Your task to perform on an android device: Clear all items from cart on amazon.com. Add "apple airpods" to the cart on amazon.com, then select checkout. Image 0: 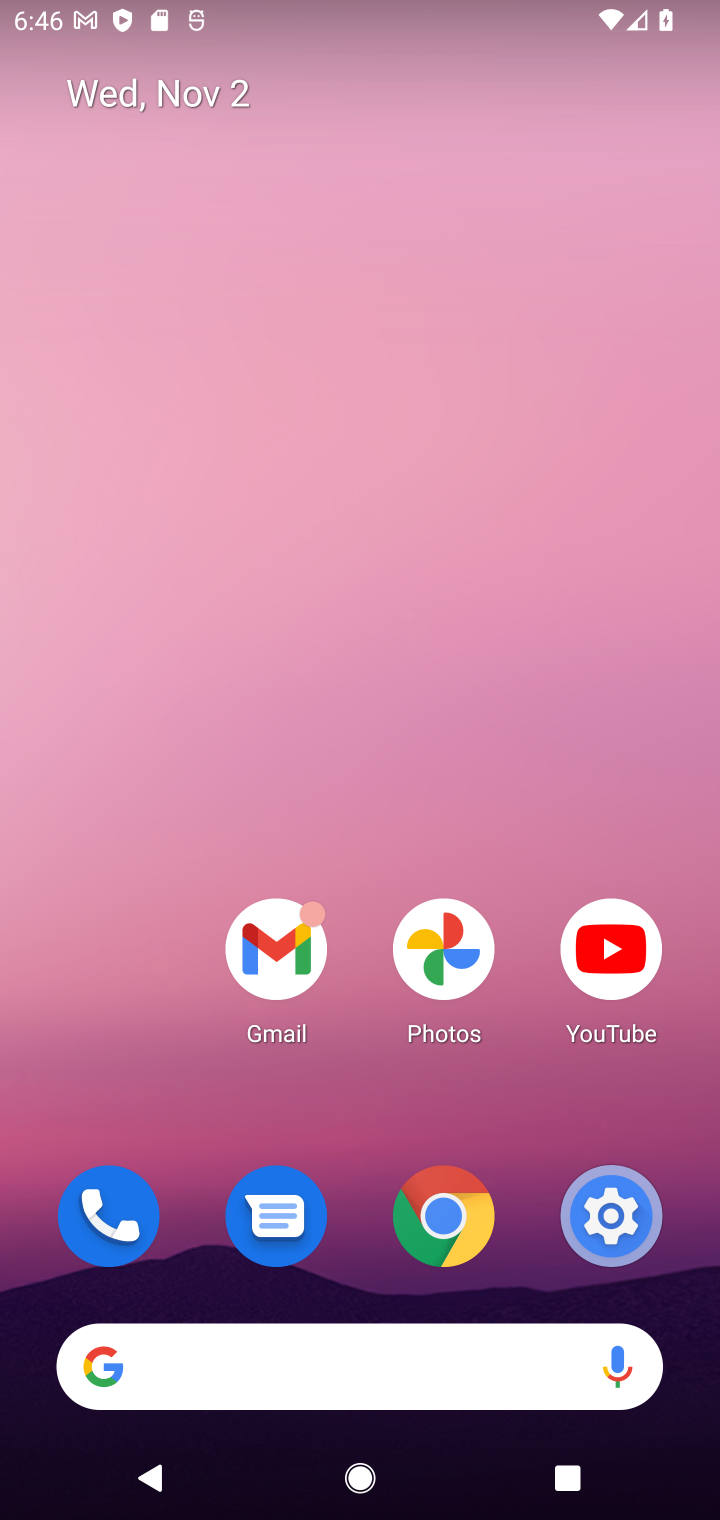
Step 0: drag from (370, 1133) to (373, 349)
Your task to perform on an android device: Clear all items from cart on amazon.com. Add "apple airpods" to the cart on amazon.com, then select checkout. Image 1: 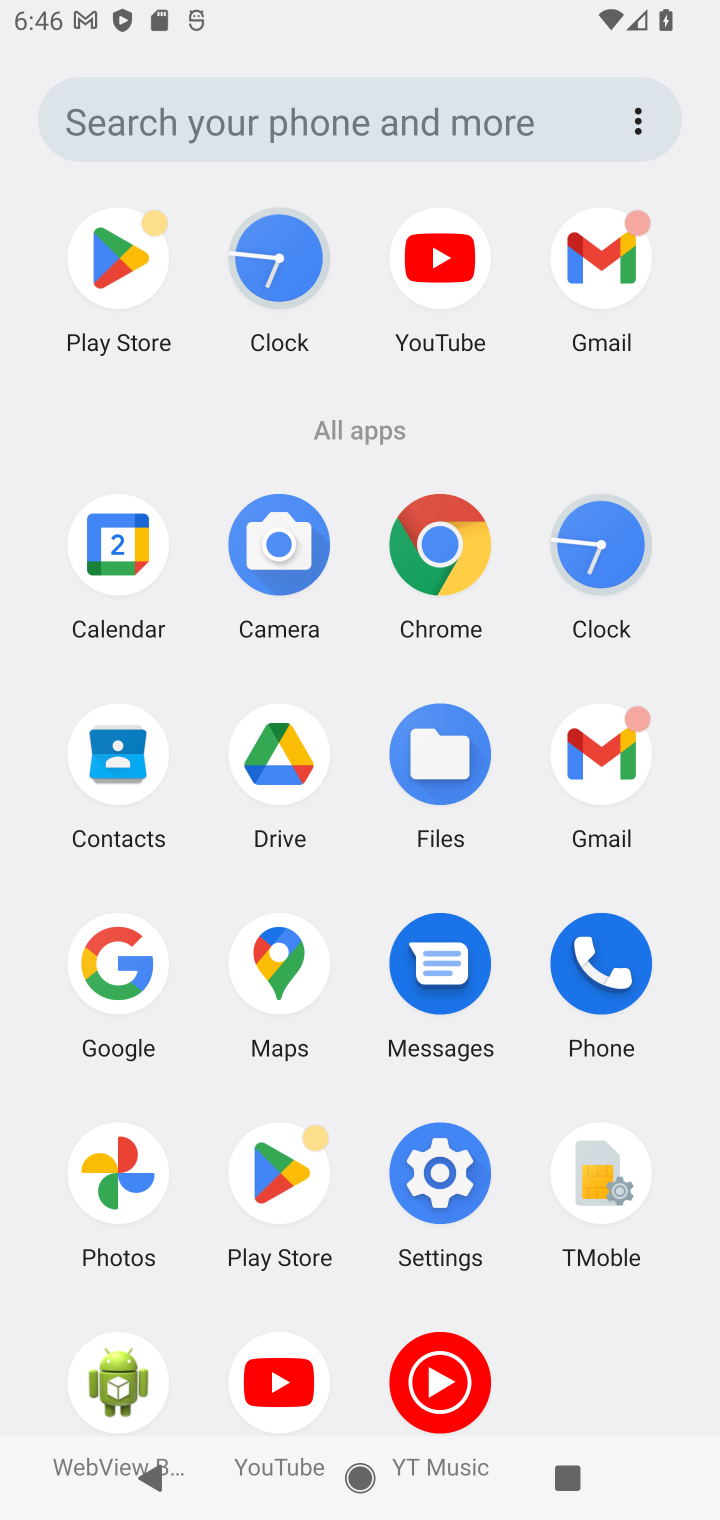
Step 1: click (429, 544)
Your task to perform on an android device: Clear all items from cart on amazon.com. Add "apple airpods" to the cart on amazon.com, then select checkout. Image 2: 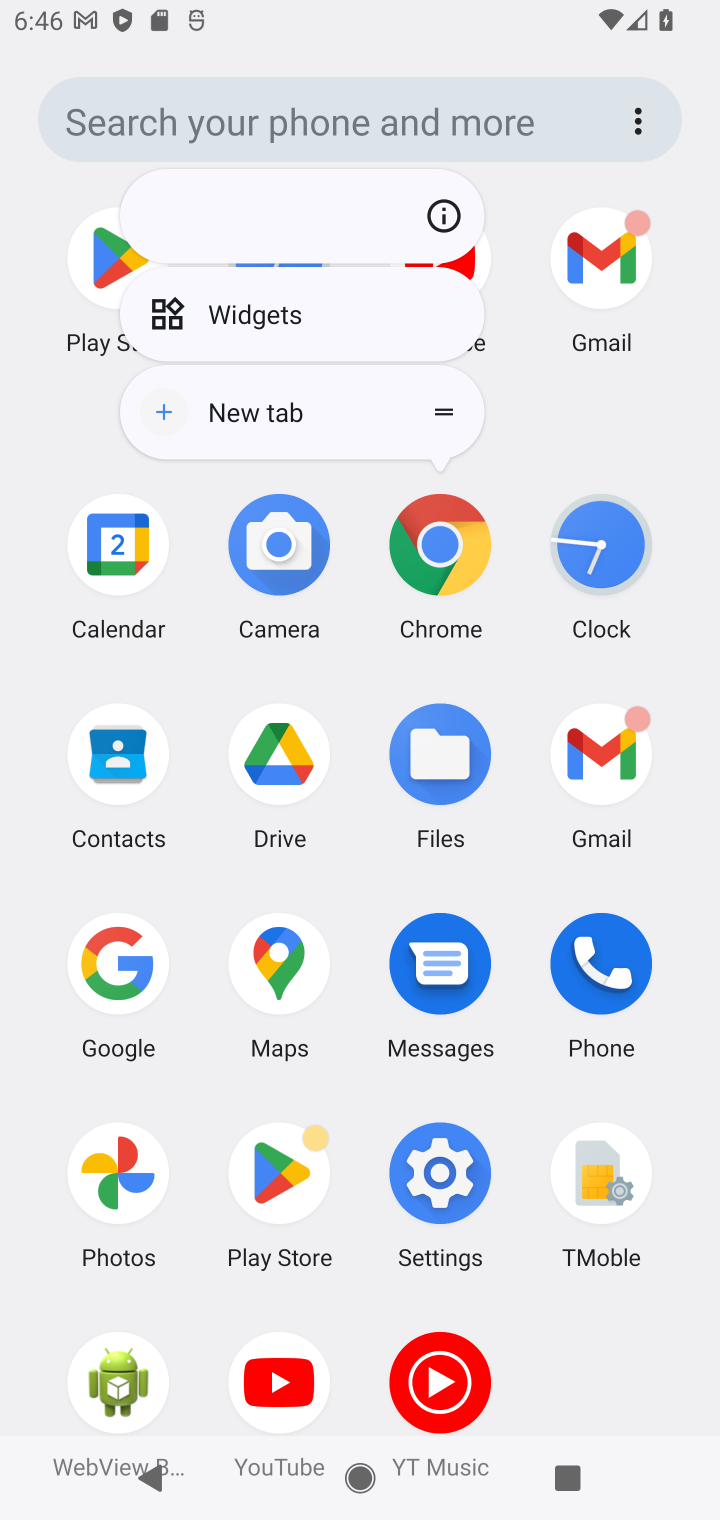
Step 2: click (450, 543)
Your task to perform on an android device: Clear all items from cart on amazon.com. Add "apple airpods" to the cart on amazon.com, then select checkout. Image 3: 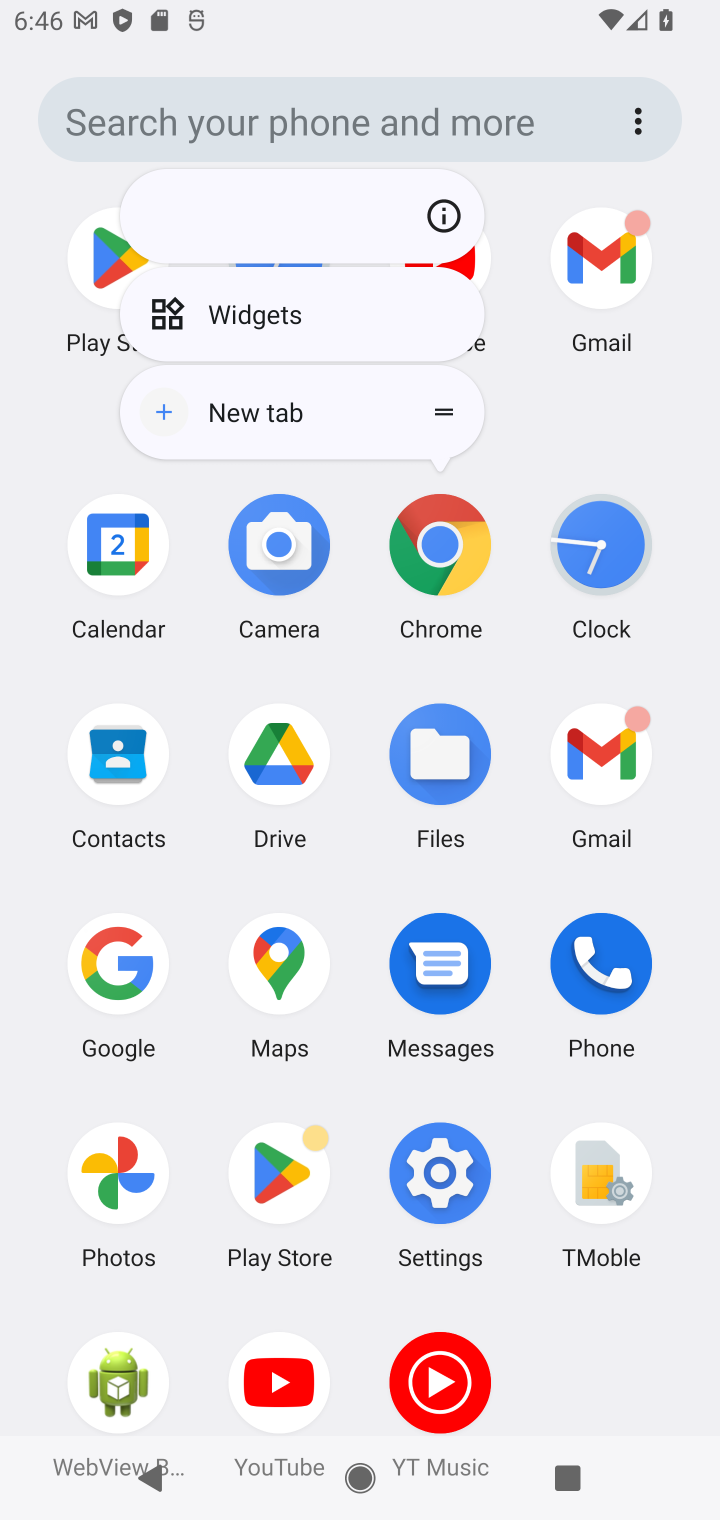
Step 3: click (437, 552)
Your task to perform on an android device: Clear all items from cart on amazon.com. Add "apple airpods" to the cart on amazon.com, then select checkout. Image 4: 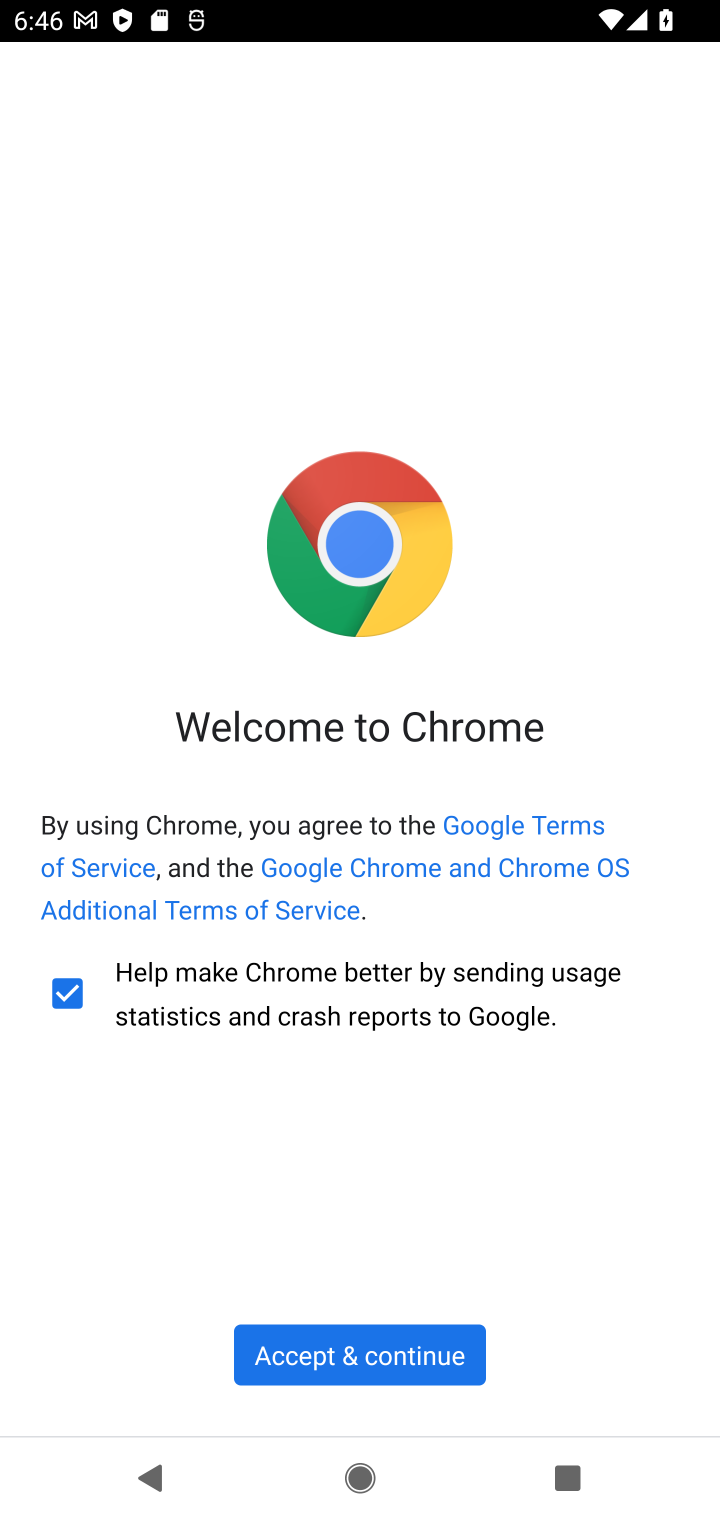
Step 4: click (384, 1359)
Your task to perform on an android device: Clear all items from cart on amazon.com. Add "apple airpods" to the cart on amazon.com, then select checkout. Image 5: 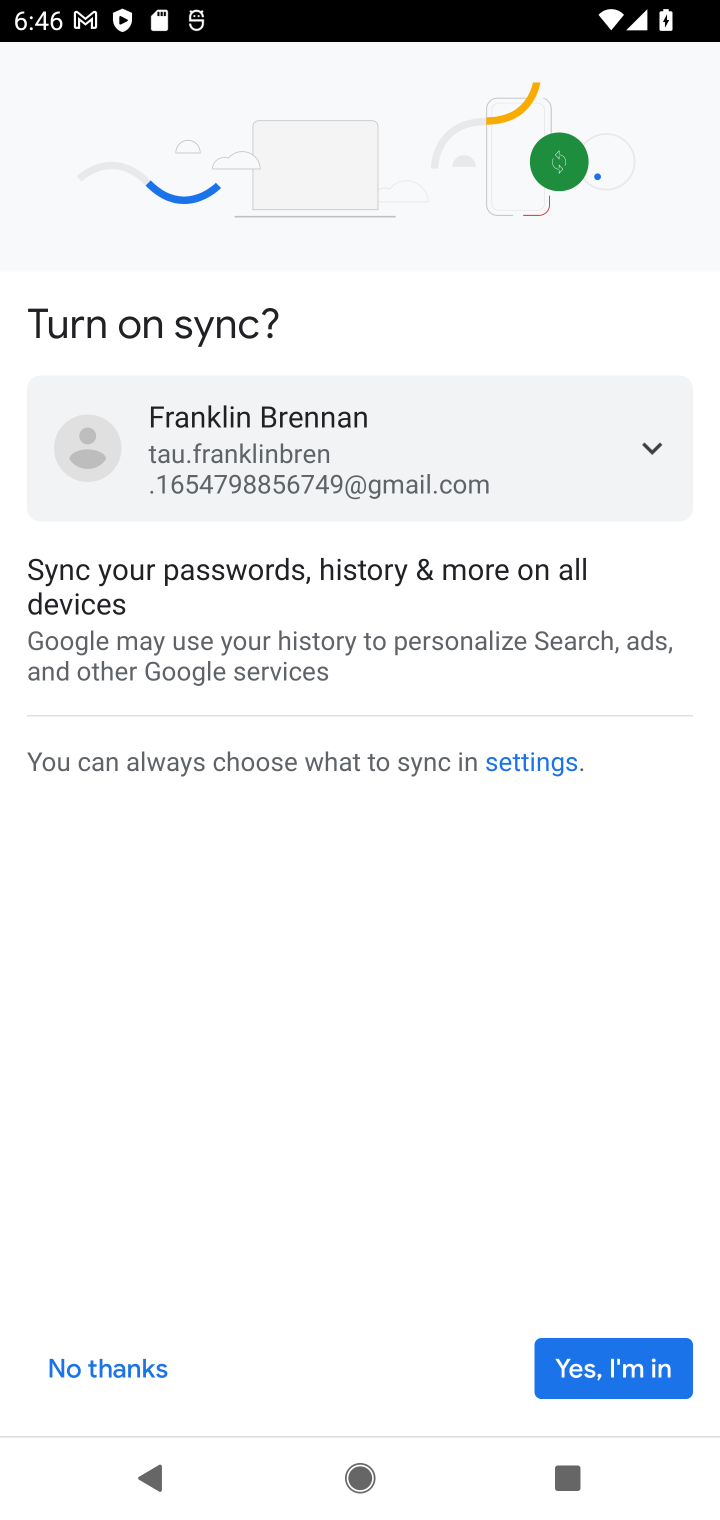
Step 5: click (641, 1382)
Your task to perform on an android device: Clear all items from cart on amazon.com. Add "apple airpods" to the cart on amazon.com, then select checkout. Image 6: 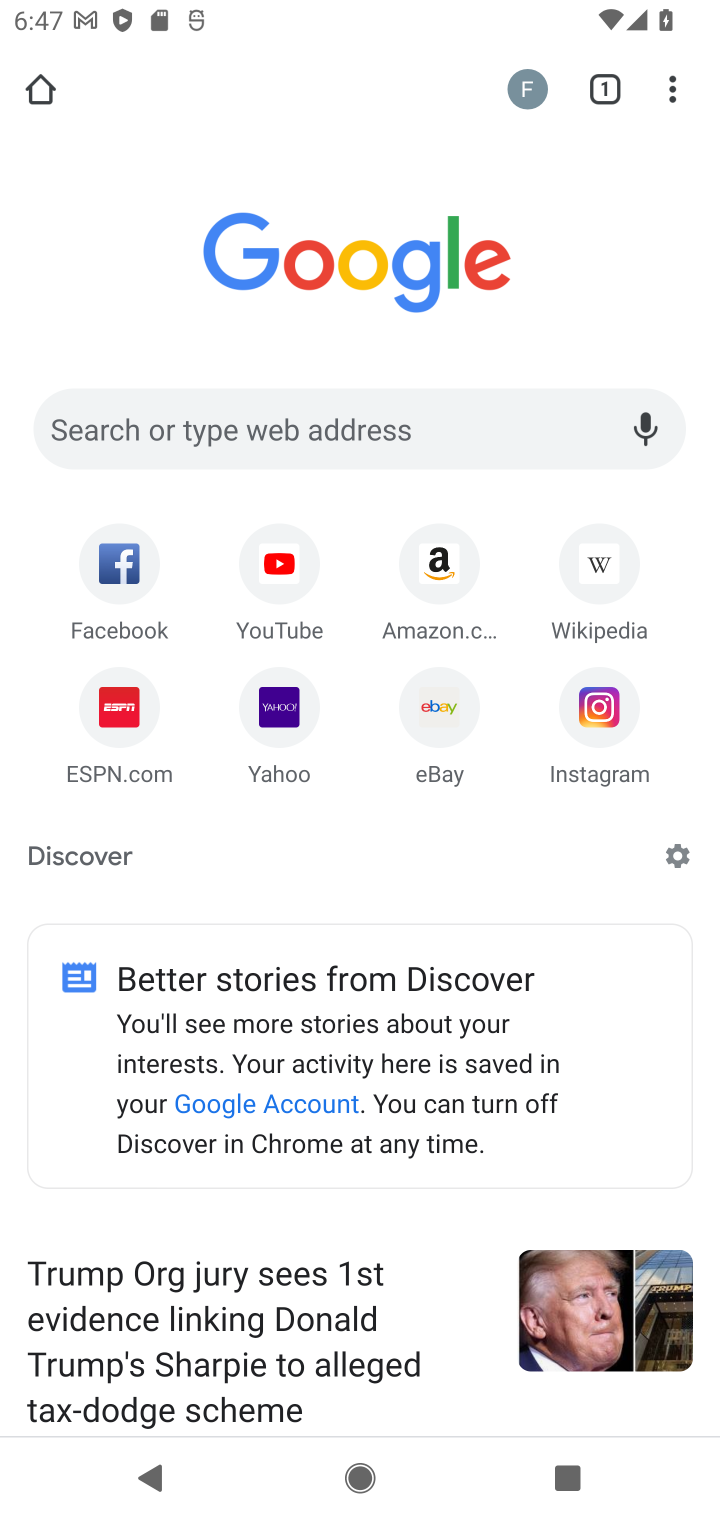
Step 6: click (352, 422)
Your task to perform on an android device: Clear all items from cart on amazon.com. Add "apple airpods" to the cart on amazon.com, then select checkout. Image 7: 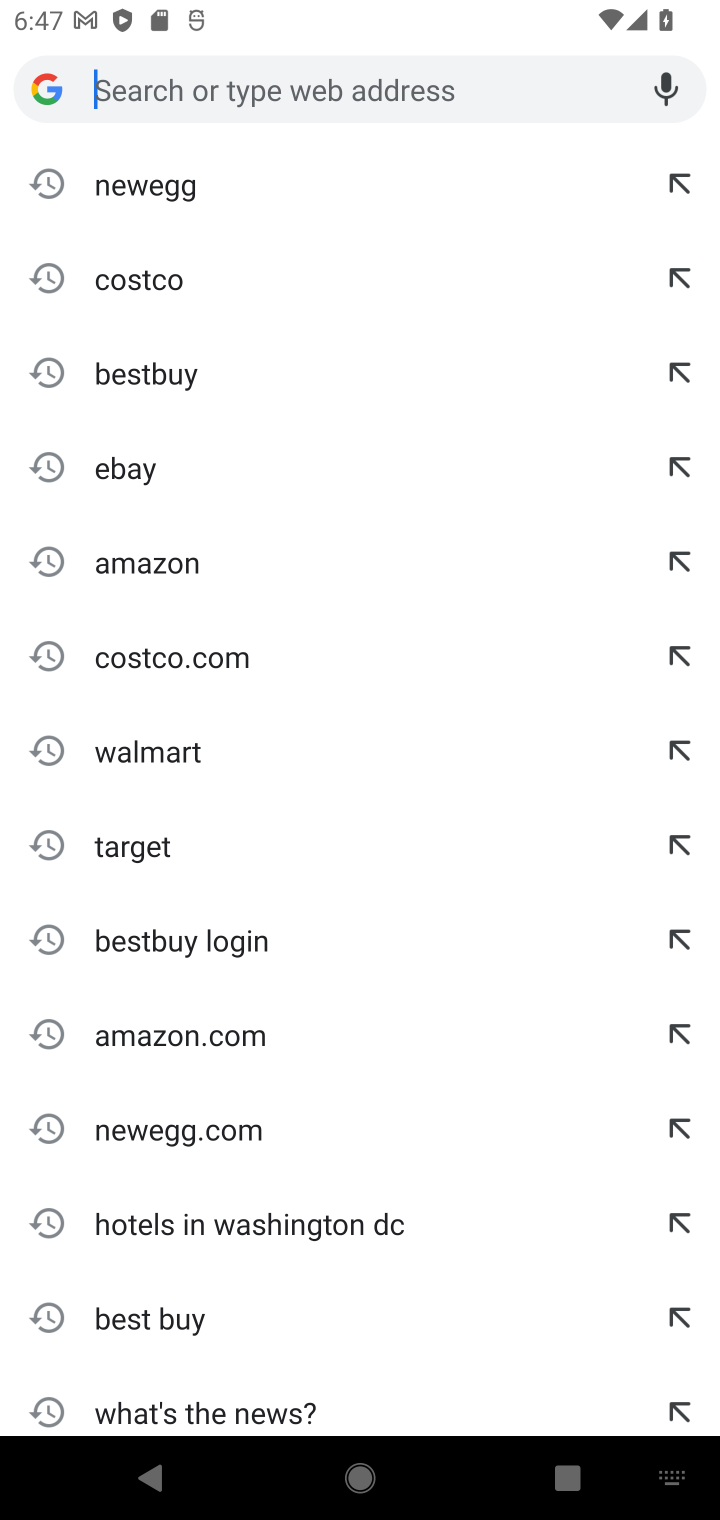
Step 7: type "amazon.com"
Your task to perform on an android device: Clear all items from cart on amazon.com. Add "apple airpods" to the cart on amazon.com, then select checkout. Image 8: 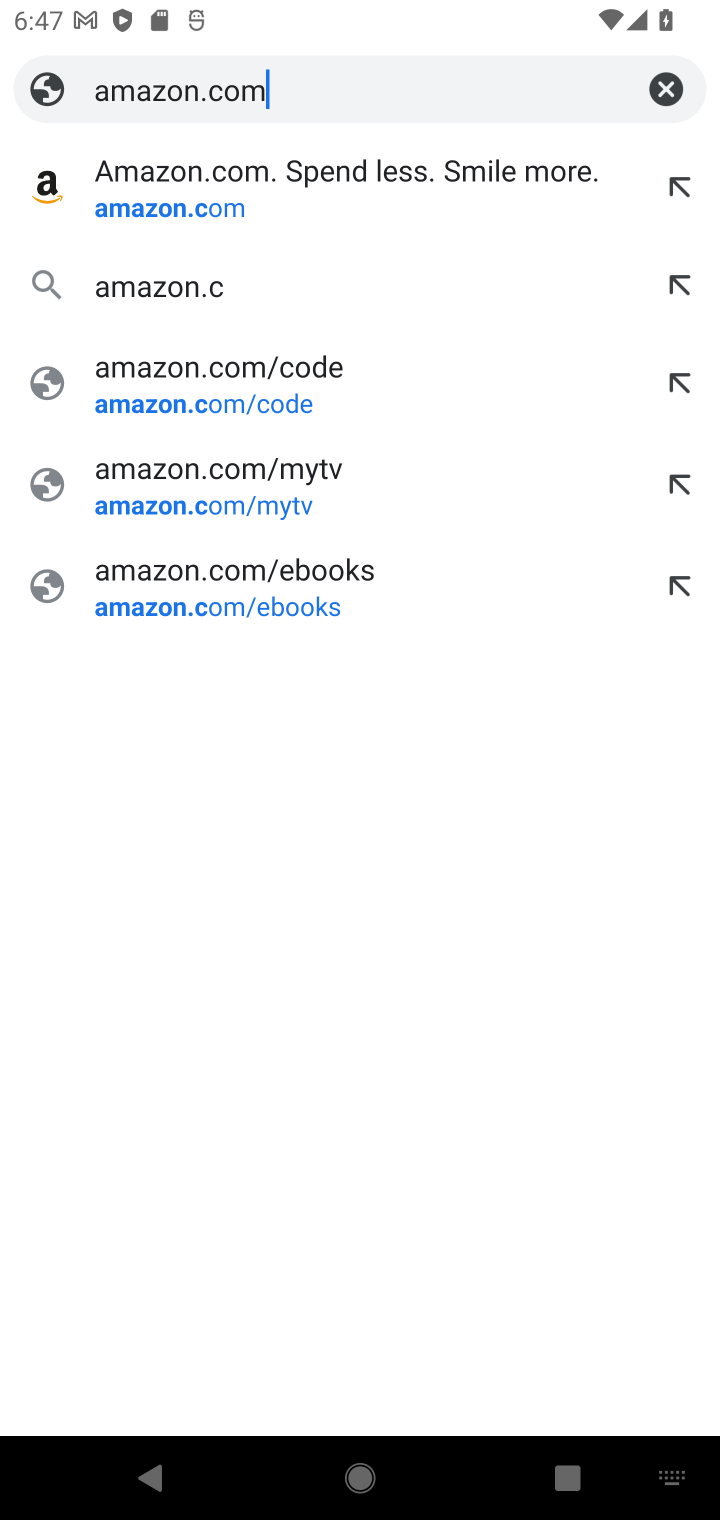
Step 8: press enter
Your task to perform on an android device: Clear all items from cart on amazon.com. Add "apple airpods" to the cart on amazon.com, then select checkout. Image 9: 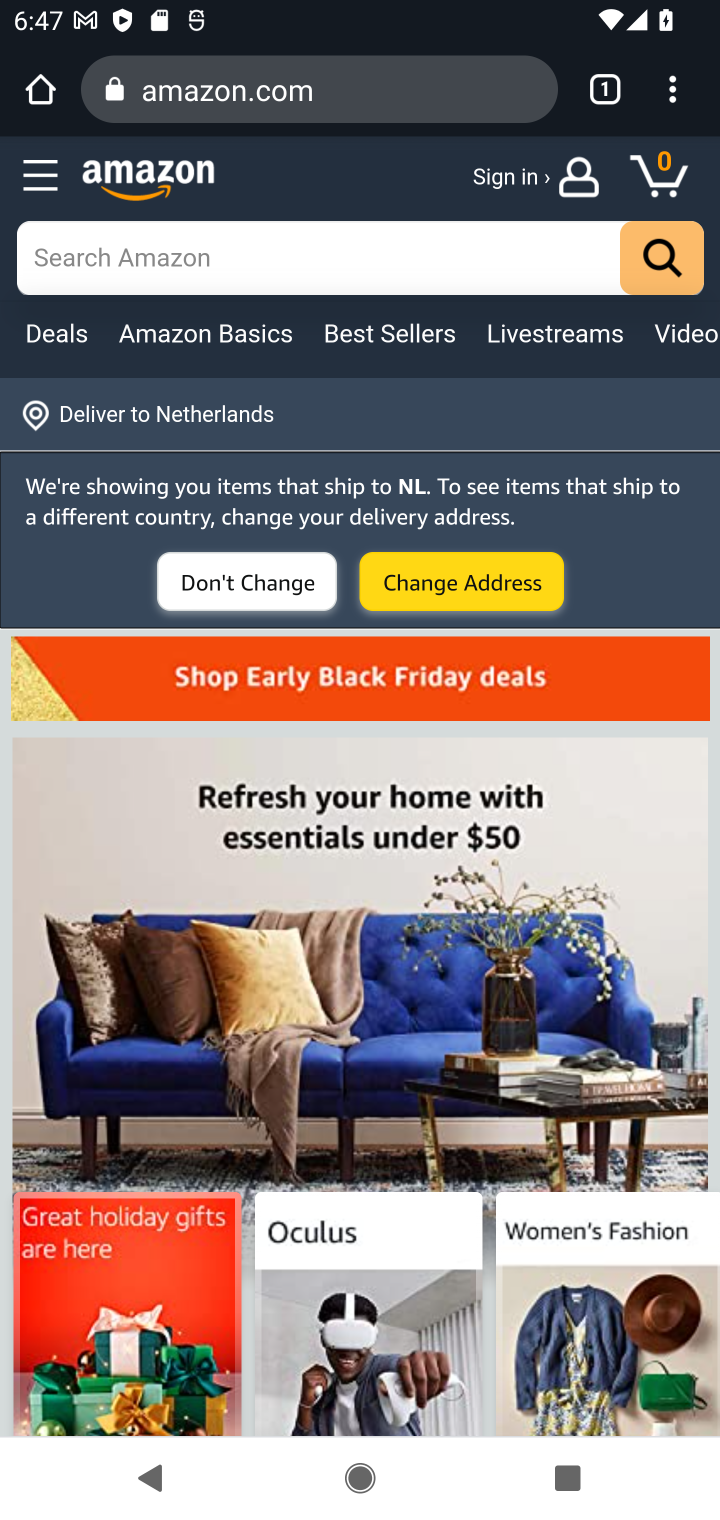
Step 9: click (666, 182)
Your task to perform on an android device: Clear all items from cart on amazon.com. Add "apple airpods" to the cart on amazon.com, then select checkout. Image 10: 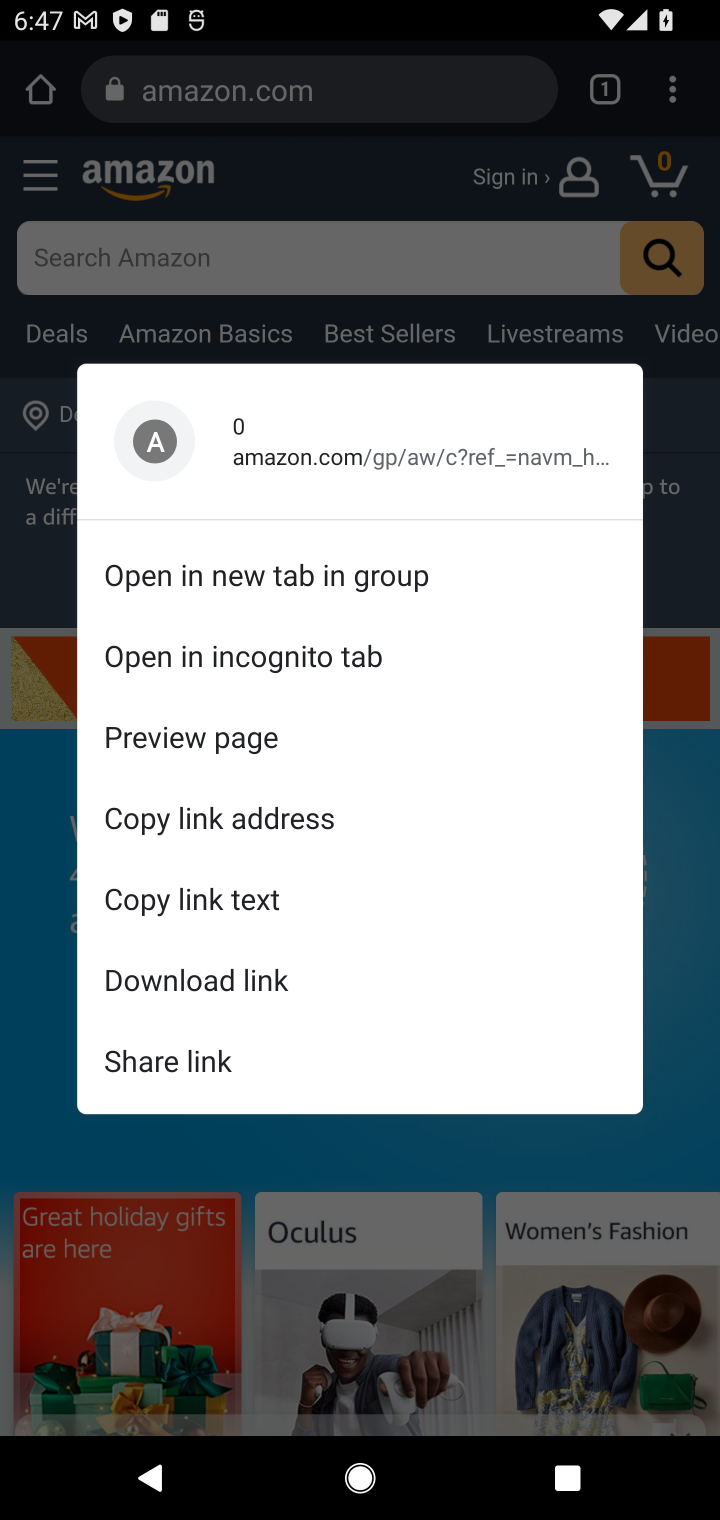
Step 10: click (666, 182)
Your task to perform on an android device: Clear all items from cart on amazon.com. Add "apple airpods" to the cart on amazon.com, then select checkout. Image 11: 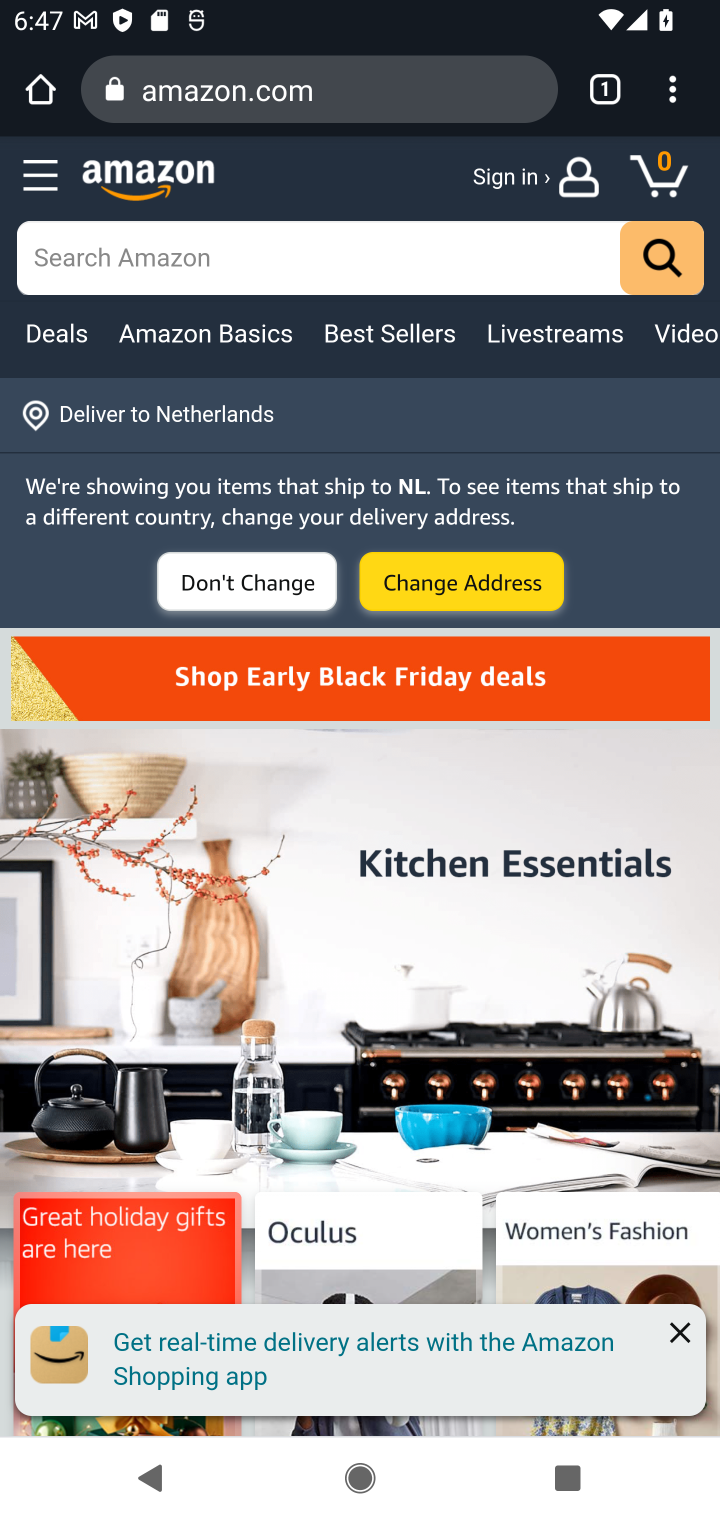
Step 11: click (666, 182)
Your task to perform on an android device: Clear all items from cart on amazon.com. Add "apple airpods" to the cart on amazon.com, then select checkout. Image 12: 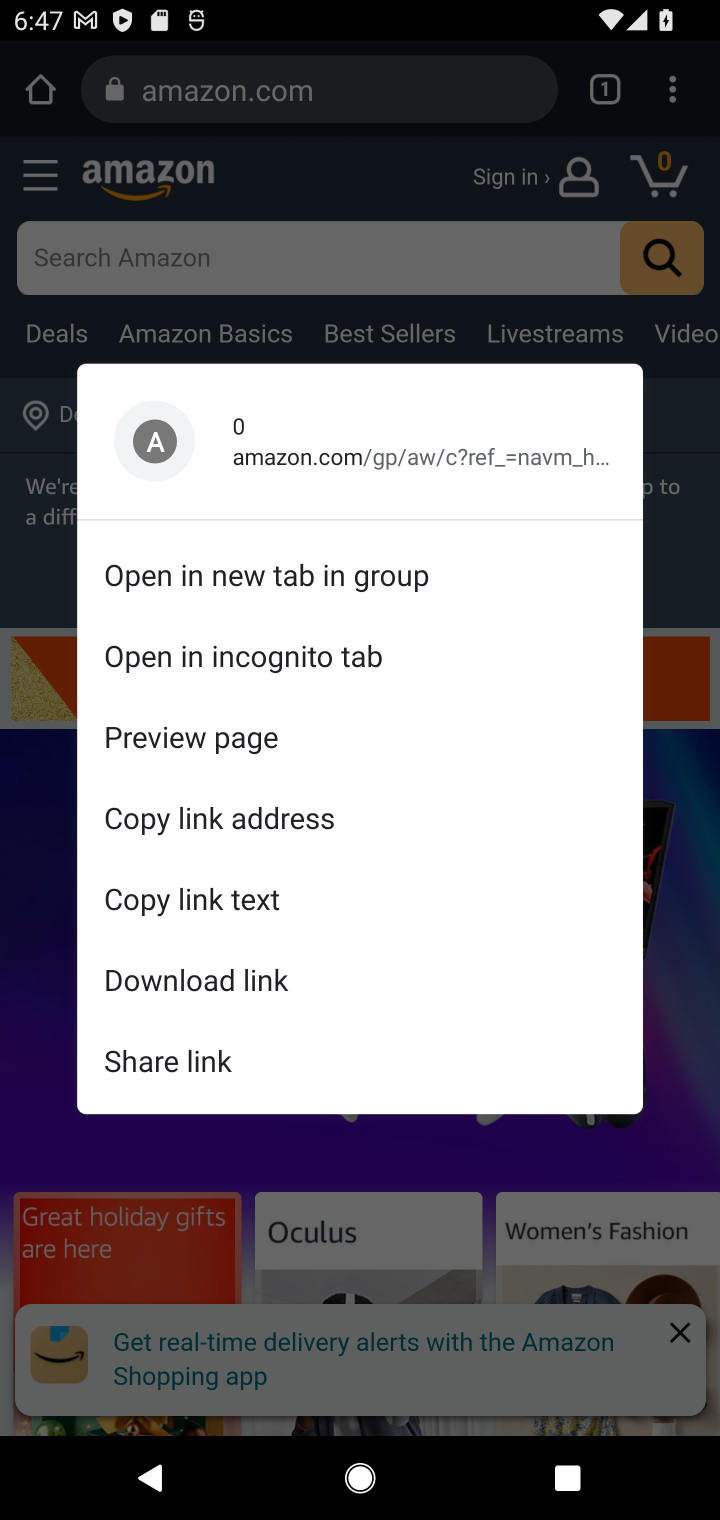
Step 12: click (672, 172)
Your task to perform on an android device: Clear all items from cart on amazon.com. Add "apple airpods" to the cart on amazon.com, then select checkout. Image 13: 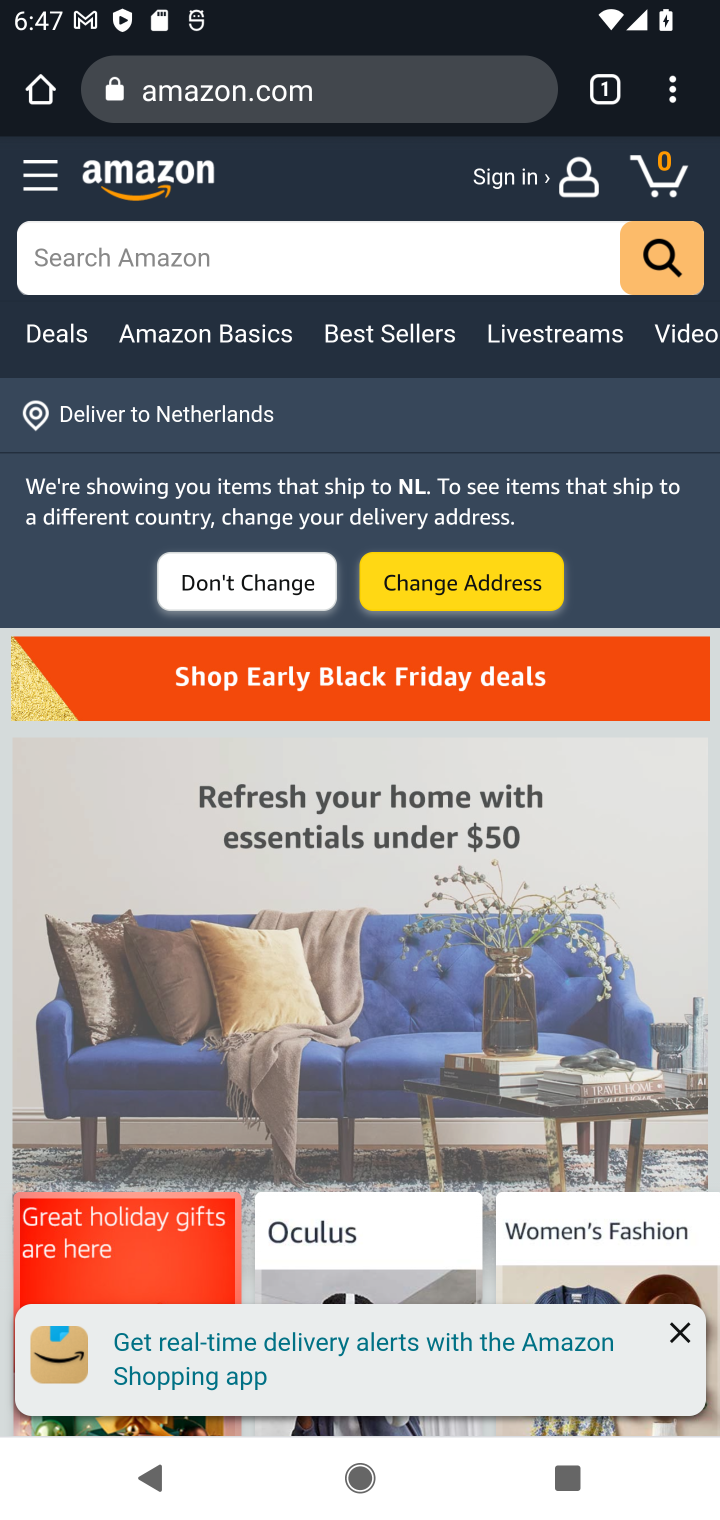
Step 13: click (672, 172)
Your task to perform on an android device: Clear all items from cart on amazon.com. Add "apple airpods" to the cart on amazon.com, then select checkout. Image 14: 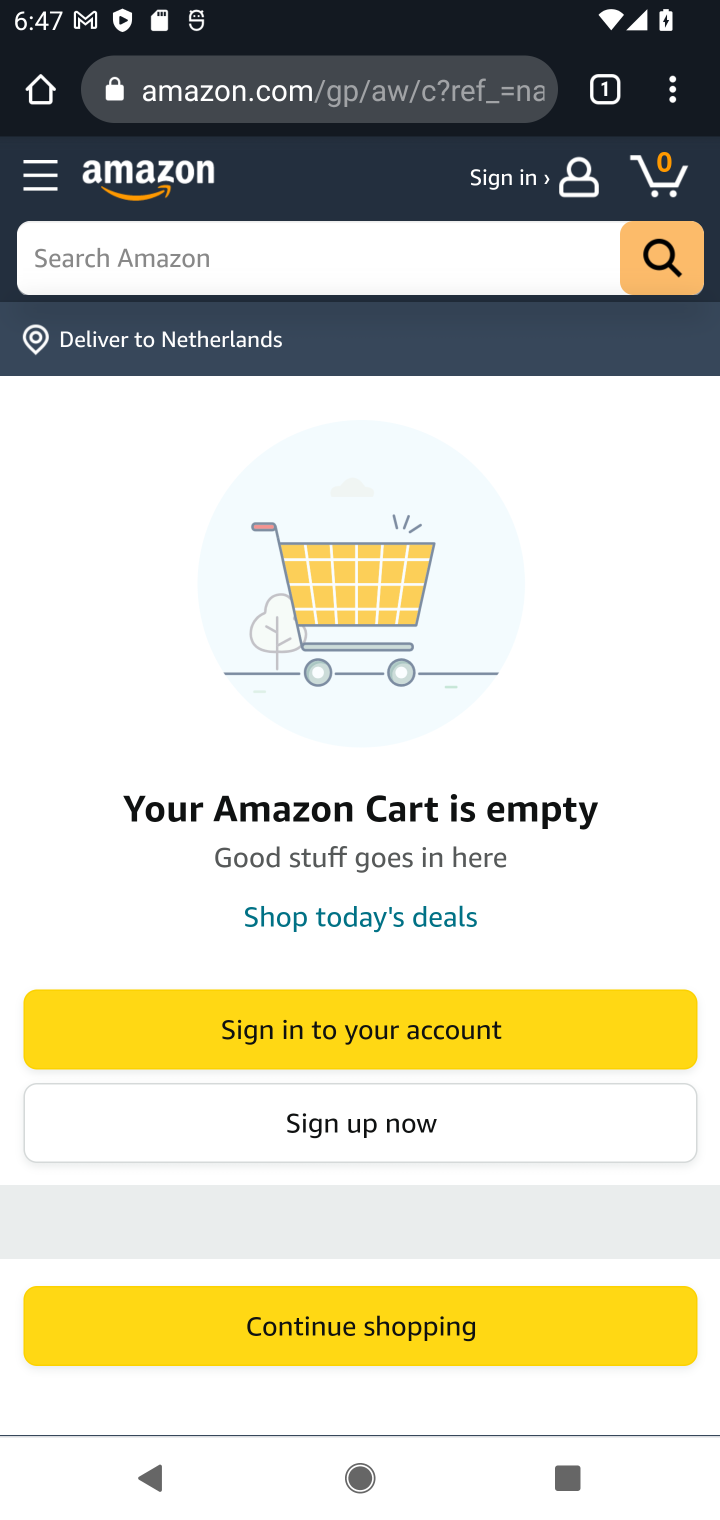
Step 14: click (317, 256)
Your task to perform on an android device: Clear all items from cart on amazon.com. Add "apple airpods" to the cart on amazon.com, then select checkout. Image 15: 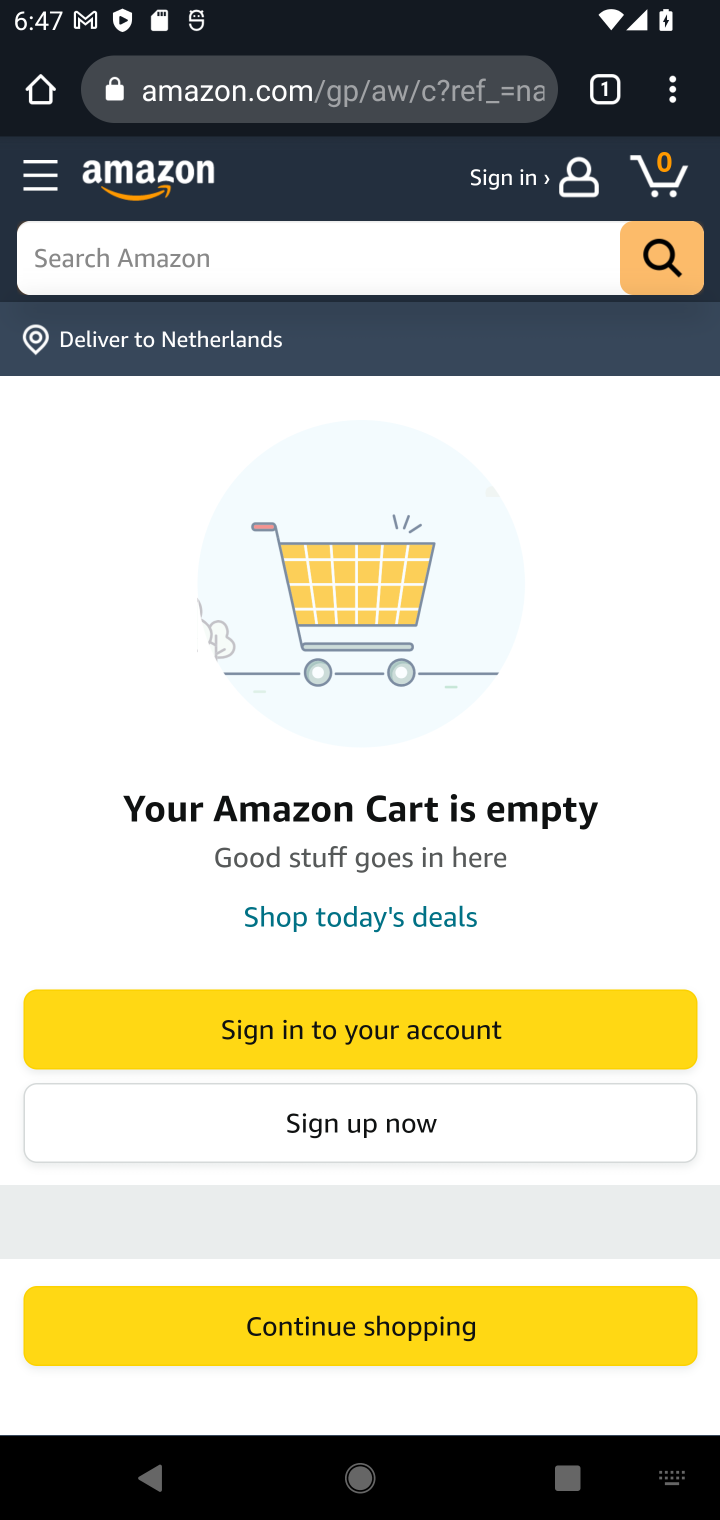
Step 15: type "apple airpods"
Your task to perform on an android device: Clear all items from cart on amazon.com. Add "apple airpods" to the cart on amazon.com, then select checkout. Image 16: 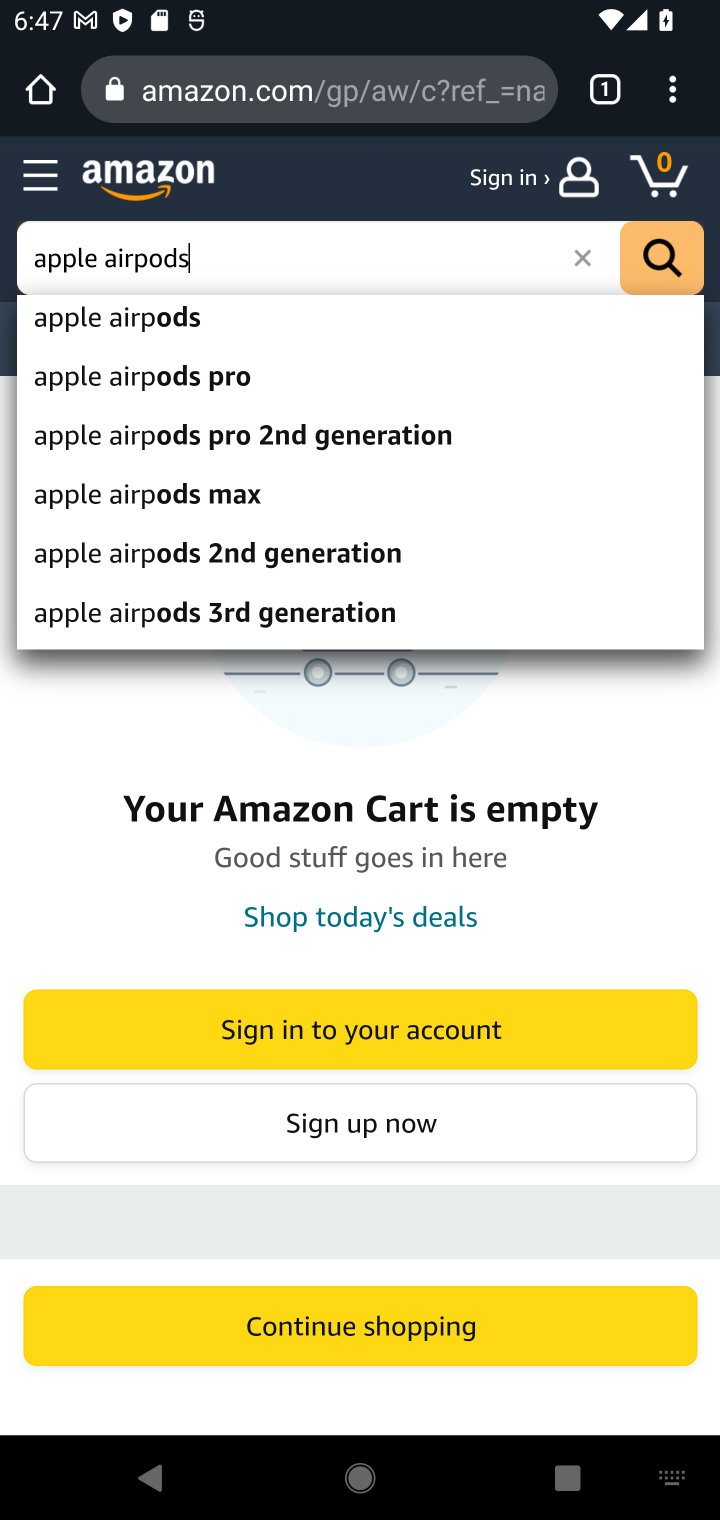
Step 16: press enter
Your task to perform on an android device: Clear all items from cart on amazon.com. Add "apple airpods" to the cart on amazon.com, then select checkout. Image 17: 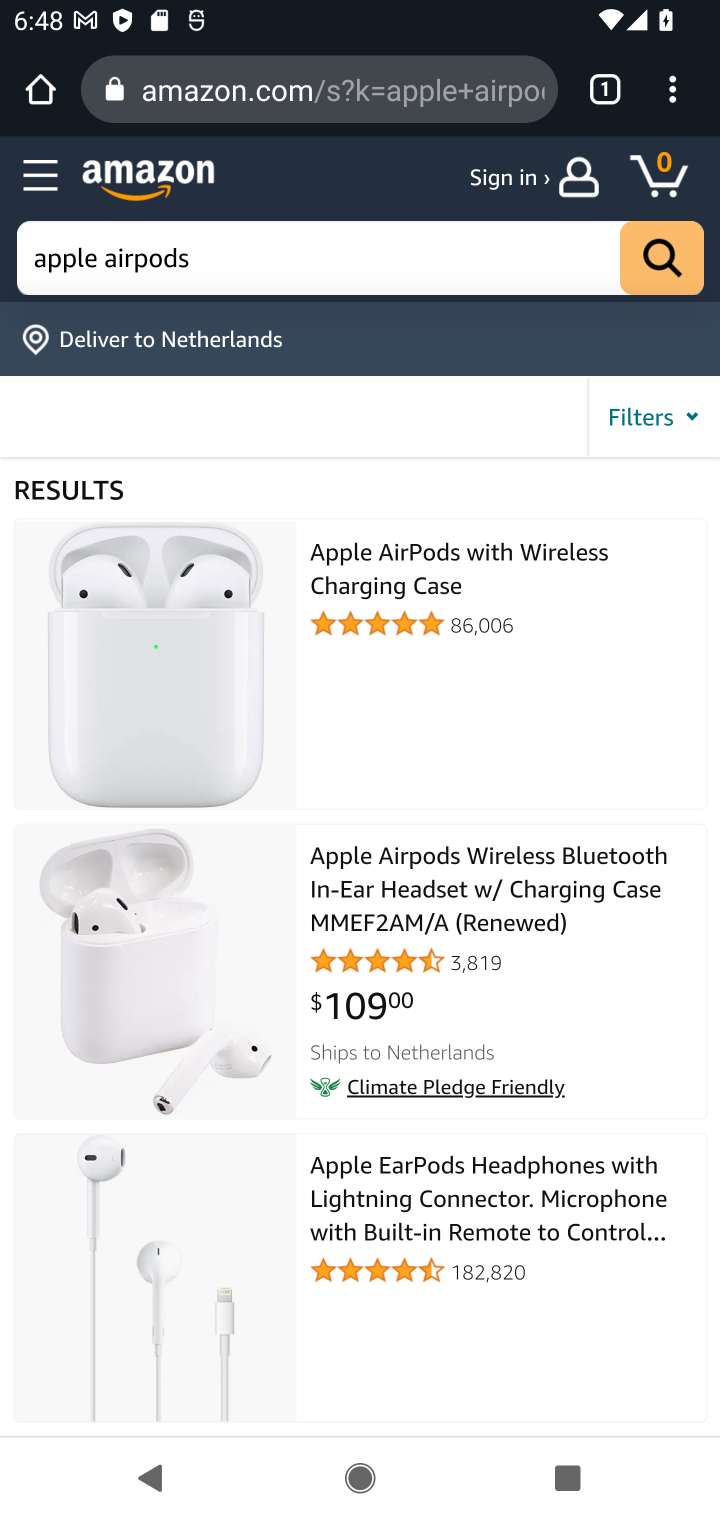
Step 17: click (206, 664)
Your task to perform on an android device: Clear all items from cart on amazon.com. Add "apple airpods" to the cart on amazon.com, then select checkout. Image 18: 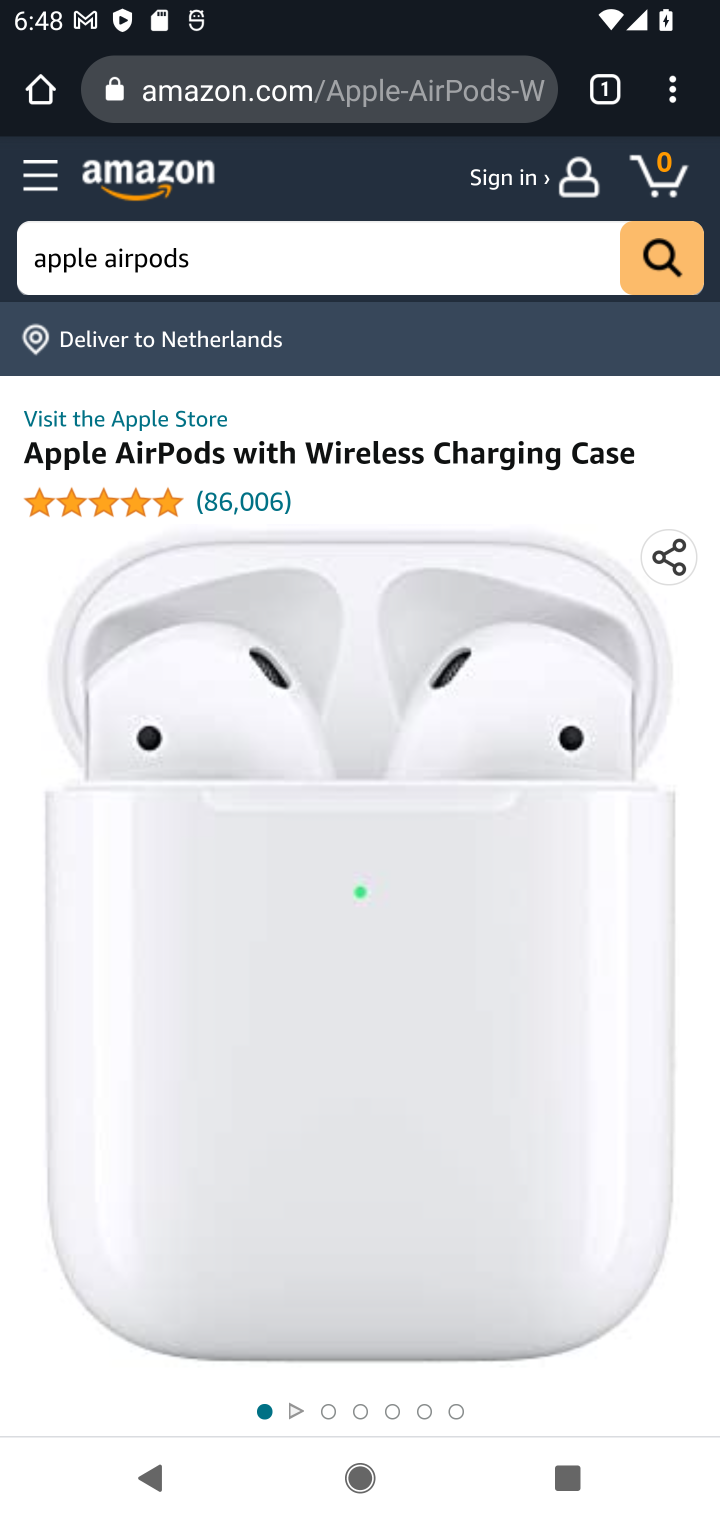
Step 18: task complete